Your task to perform on an android device: Open the calendar app, open the side menu, and click the "Day" option Image 0: 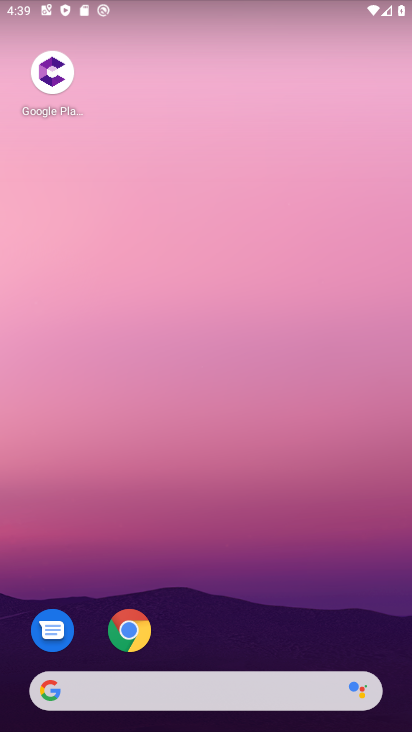
Step 0: drag from (290, 618) to (292, 54)
Your task to perform on an android device: Open the calendar app, open the side menu, and click the "Day" option Image 1: 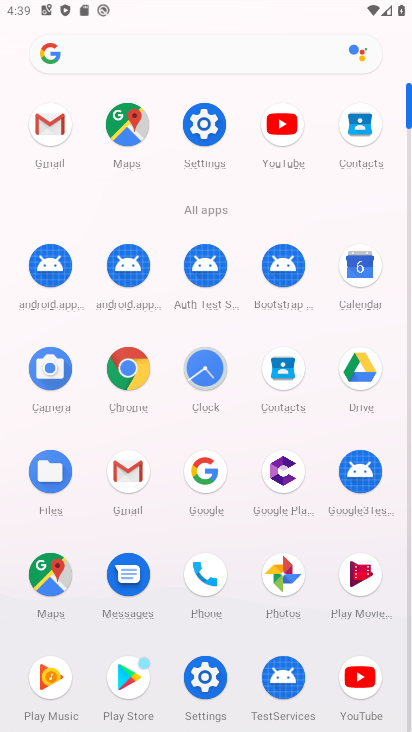
Step 1: click (366, 261)
Your task to perform on an android device: Open the calendar app, open the side menu, and click the "Day" option Image 2: 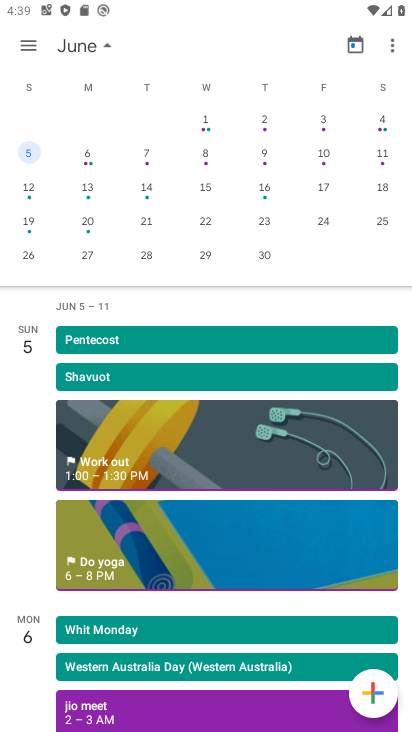
Step 2: click (28, 48)
Your task to perform on an android device: Open the calendar app, open the side menu, and click the "Day" option Image 3: 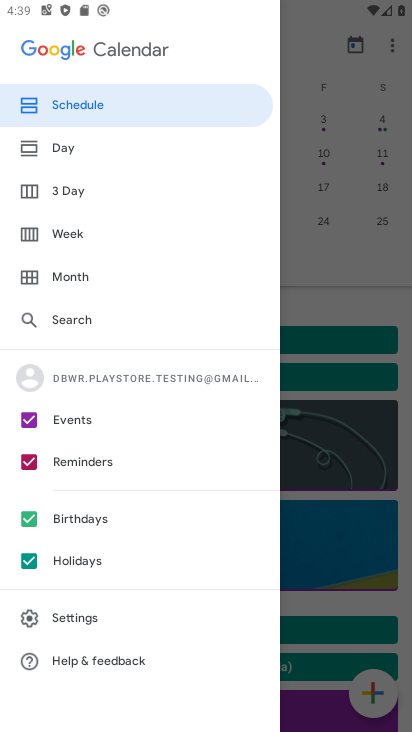
Step 3: click (62, 147)
Your task to perform on an android device: Open the calendar app, open the side menu, and click the "Day" option Image 4: 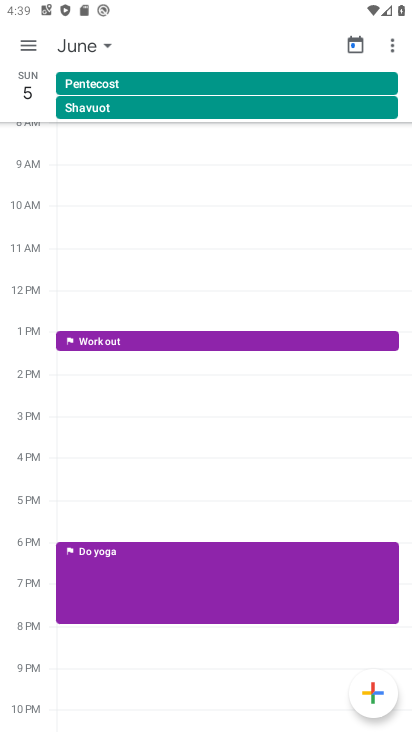
Step 4: task complete